Your task to perform on an android device: Open Android settings Image 0: 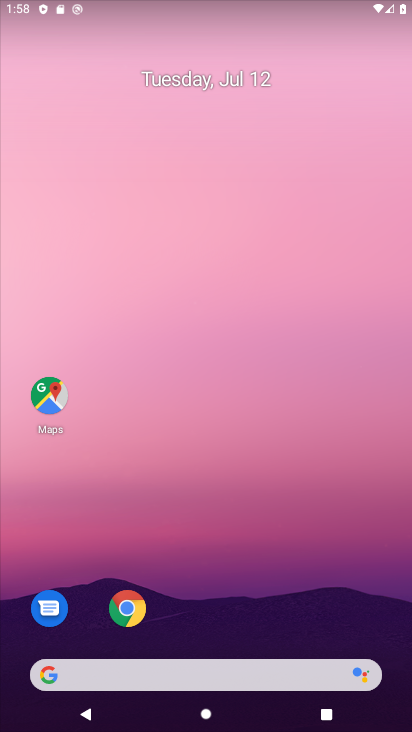
Step 0: click (237, 99)
Your task to perform on an android device: Open Android settings Image 1: 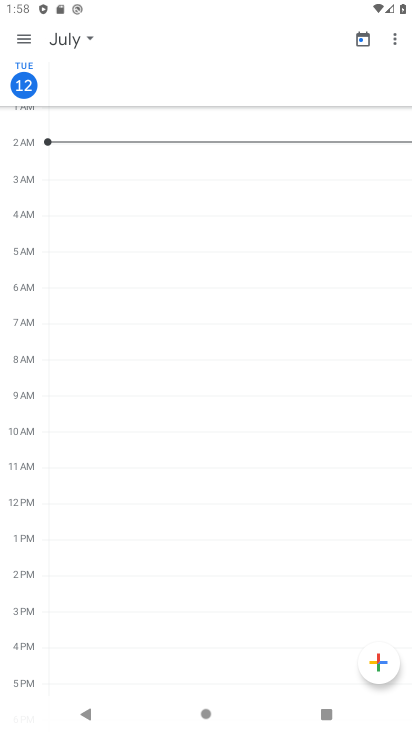
Step 1: press home button
Your task to perform on an android device: Open Android settings Image 2: 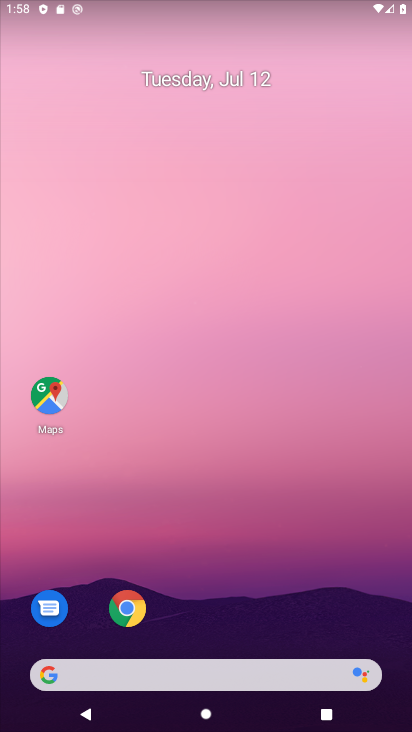
Step 2: drag from (318, 615) to (257, 106)
Your task to perform on an android device: Open Android settings Image 3: 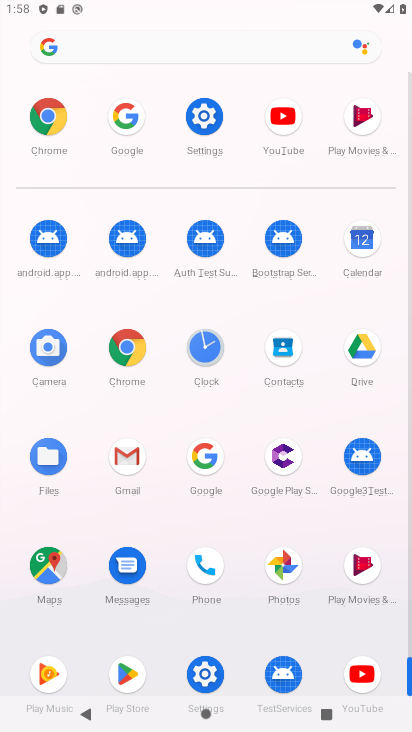
Step 3: click (209, 116)
Your task to perform on an android device: Open Android settings Image 4: 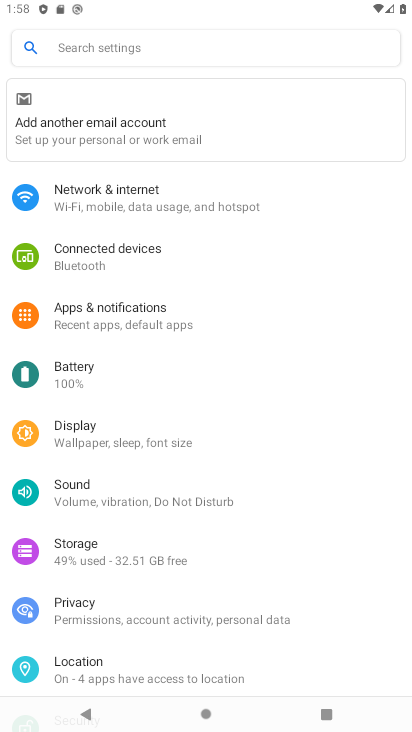
Step 4: task complete